Your task to perform on an android device: turn off location Image 0: 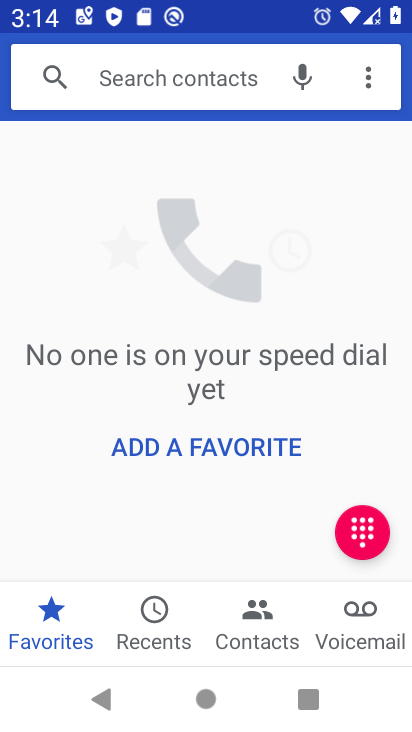
Step 0: press home button
Your task to perform on an android device: turn off location Image 1: 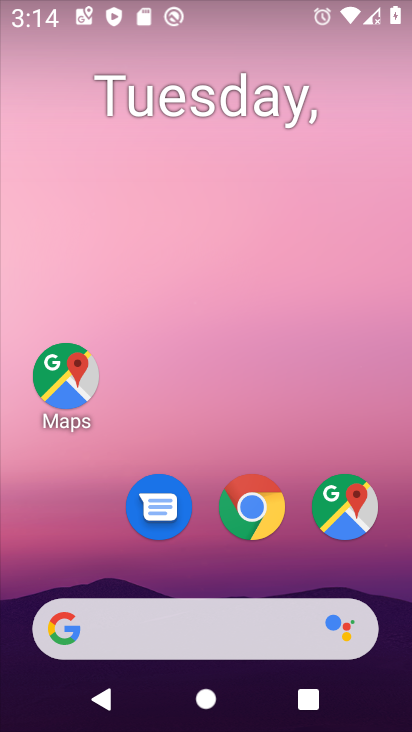
Step 1: drag from (297, 513) to (307, 119)
Your task to perform on an android device: turn off location Image 2: 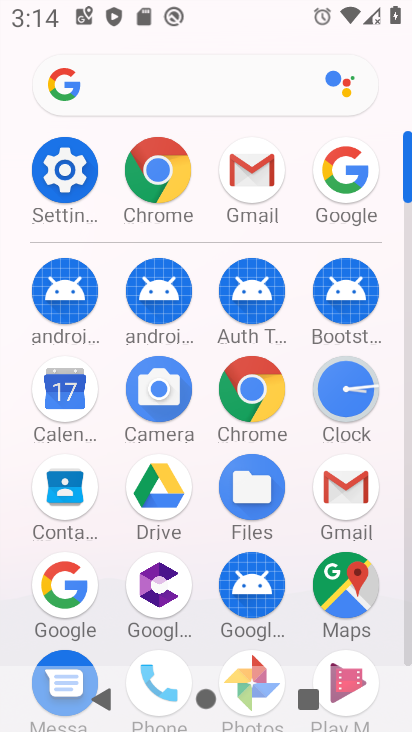
Step 2: click (69, 165)
Your task to perform on an android device: turn off location Image 3: 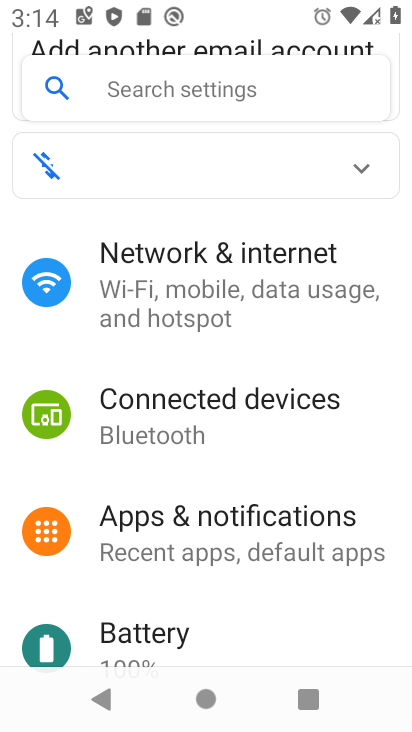
Step 3: drag from (219, 548) to (246, 232)
Your task to perform on an android device: turn off location Image 4: 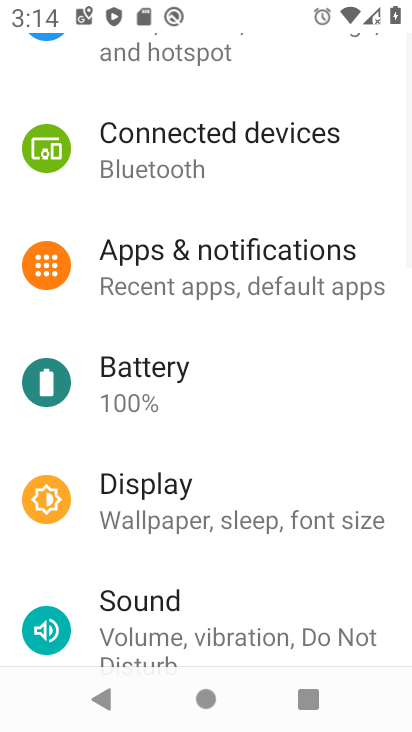
Step 4: drag from (189, 564) to (237, 280)
Your task to perform on an android device: turn off location Image 5: 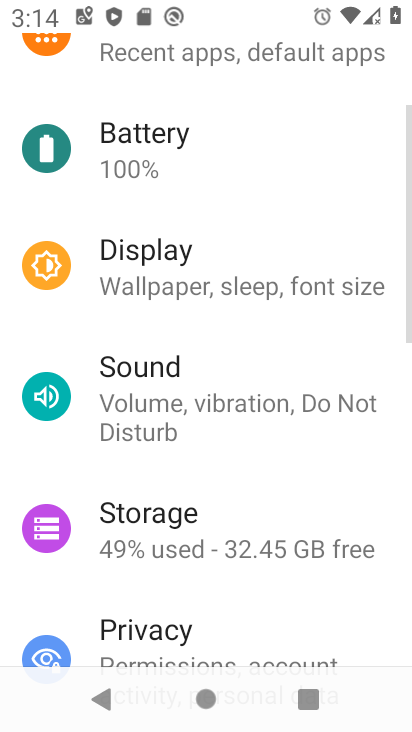
Step 5: drag from (191, 582) to (237, 251)
Your task to perform on an android device: turn off location Image 6: 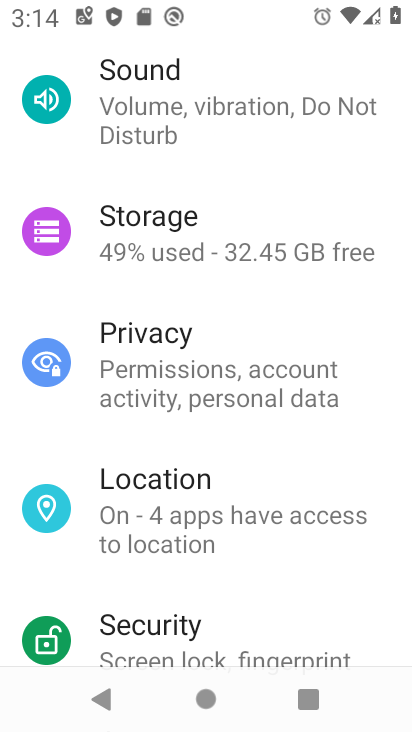
Step 6: click (185, 514)
Your task to perform on an android device: turn off location Image 7: 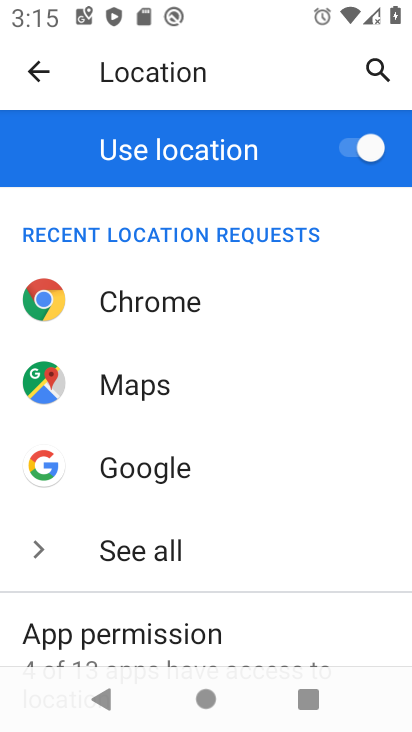
Step 7: click (350, 144)
Your task to perform on an android device: turn off location Image 8: 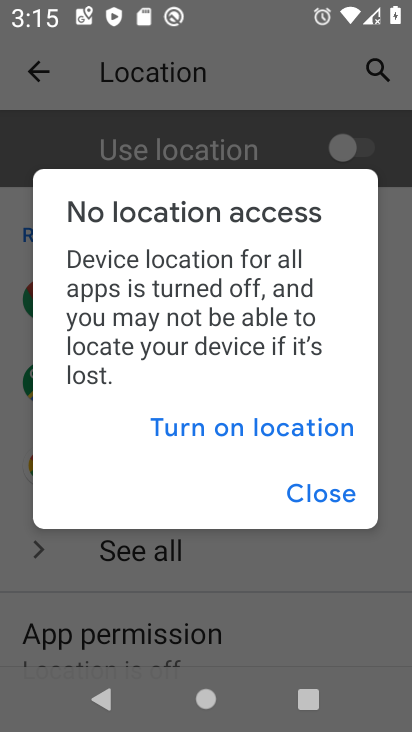
Step 8: click (290, 430)
Your task to perform on an android device: turn off location Image 9: 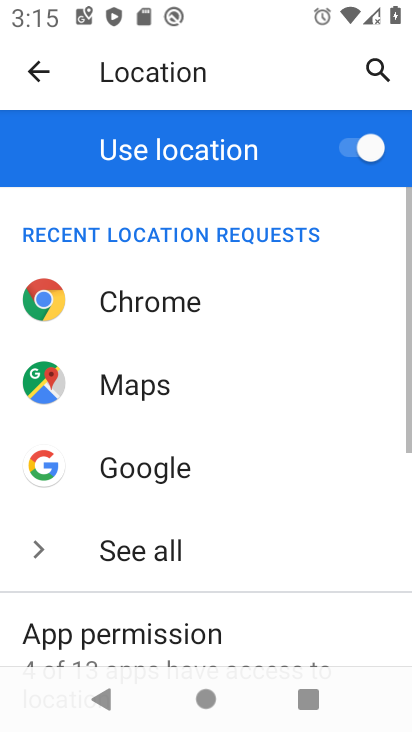
Step 9: task complete